Your task to perform on an android device: Open Google Chrome and click the shortcut for Amazon.com Image 0: 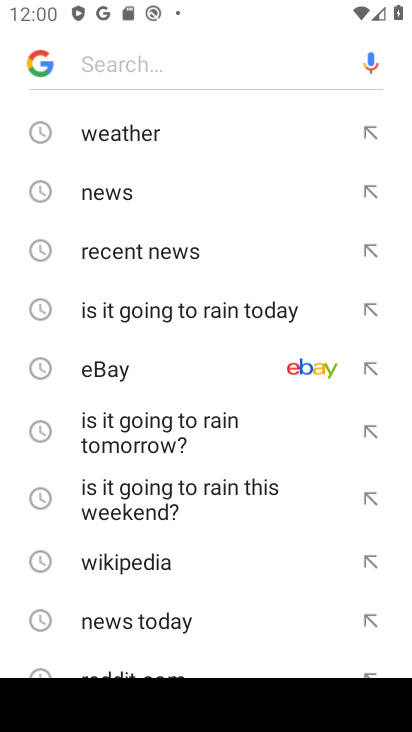
Step 0: press home button
Your task to perform on an android device: Open Google Chrome and click the shortcut for Amazon.com Image 1: 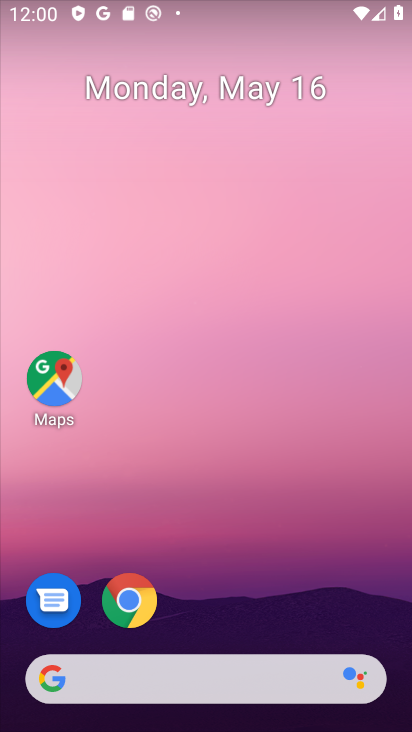
Step 1: drag from (187, 725) to (196, 130)
Your task to perform on an android device: Open Google Chrome and click the shortcut for Amazon.com Image 2: 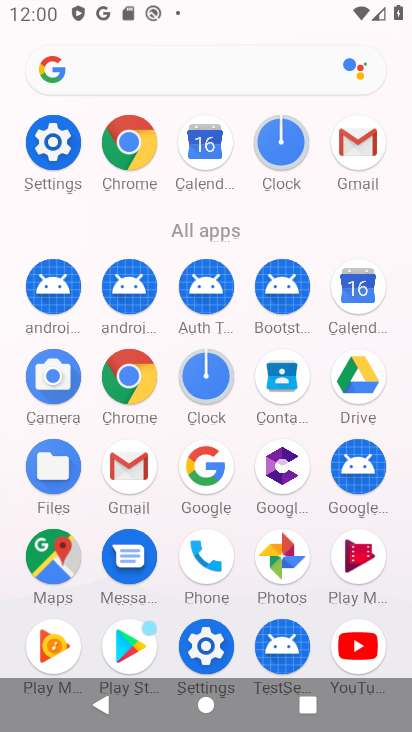
Step 2: click (130, 141)
Your task to perform on an android device: Open Google Chrome and click the shortcut for Amazon.com Image 3: 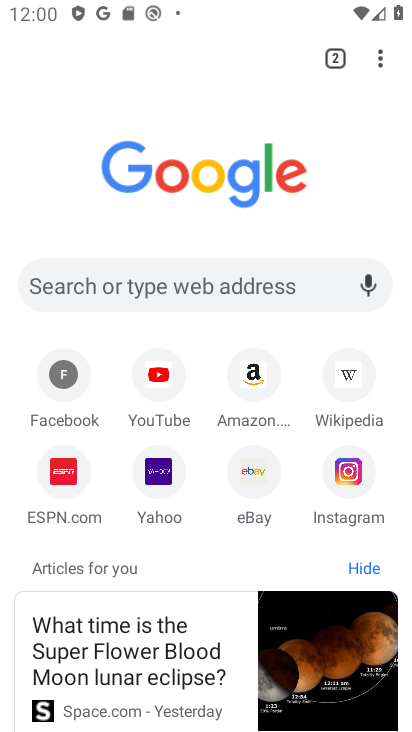
Step 3: click (252, 380)
Your task to perform on an android device: Open Google Chrome and click the shortcut for Amazon.com Image 4: 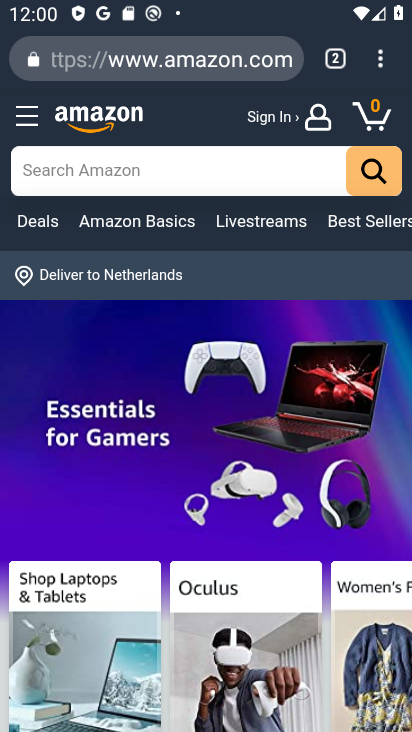
Step 4: task complete